Your task to perform on an android device: What's the weather? Image 0: 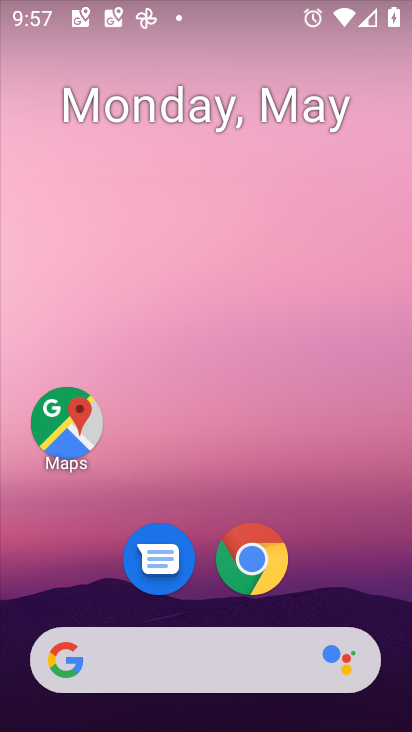
Step 0: drag from (396, 658) to (265, 15)
Your task to perform on an android device: What's the weather? Image 1: 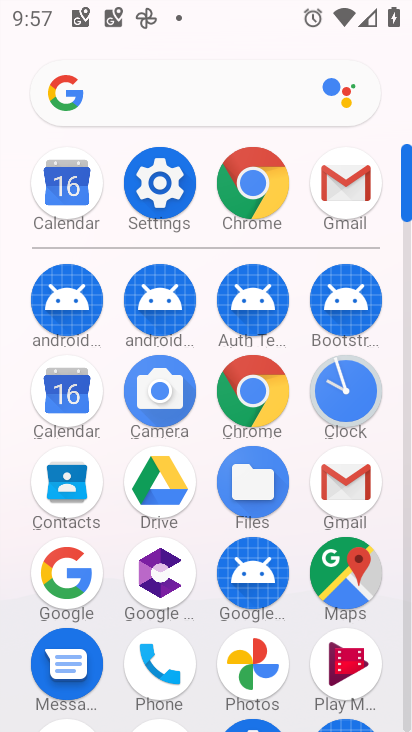
Step 1: click (67, 573)
Your task to perform on an android device: What's the weather? Image 2: 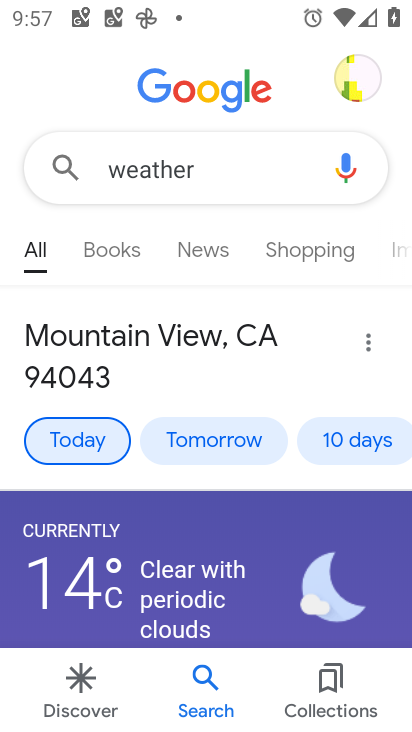
Step 2: task complete